Your task to perform on an android device: turn on translation in the chrome app Image 0: 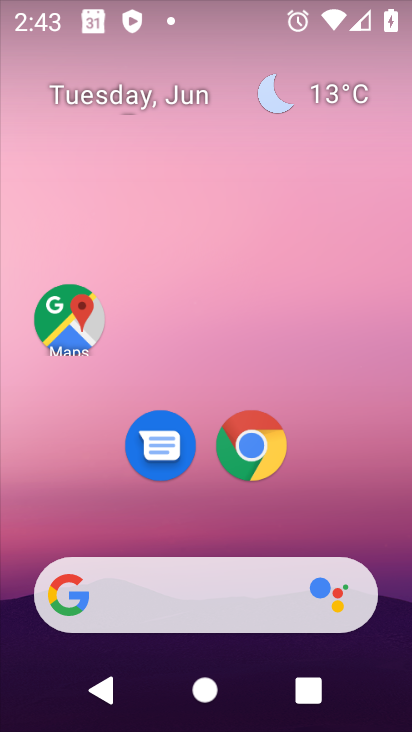
Step 0: click (250, 436)
Your task to perform on an android device: turn on translation in the chrome app Image 1: 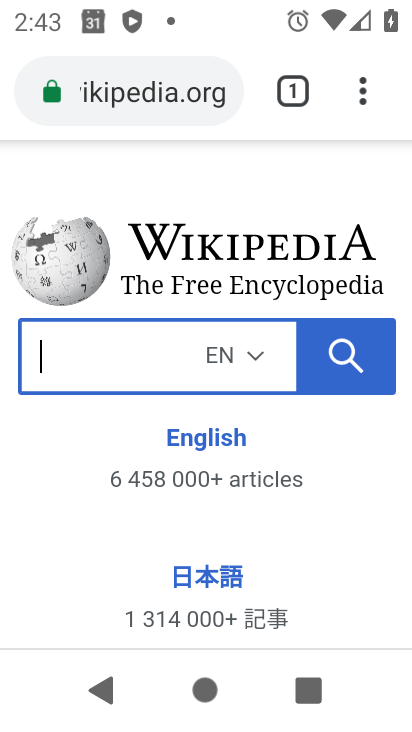
Step 1: click (361, 99)
Your task to perform on an android device: turn on translation in the chrome app Image 2: 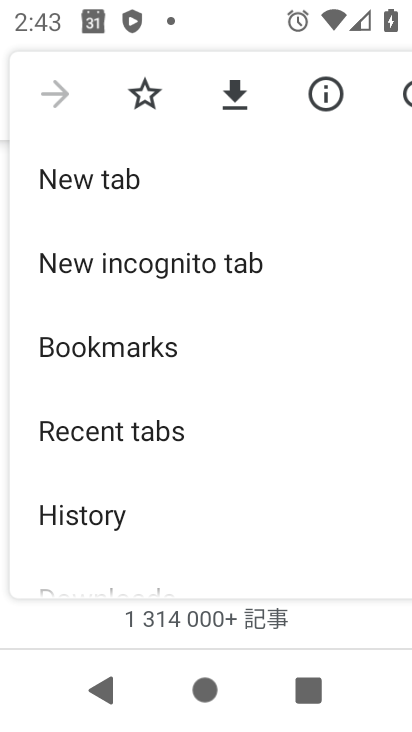
Step 2: drag from (232, 518) to (299, 157)
Your task to perform on an android device: turn on translation in the chrome app Image 3: 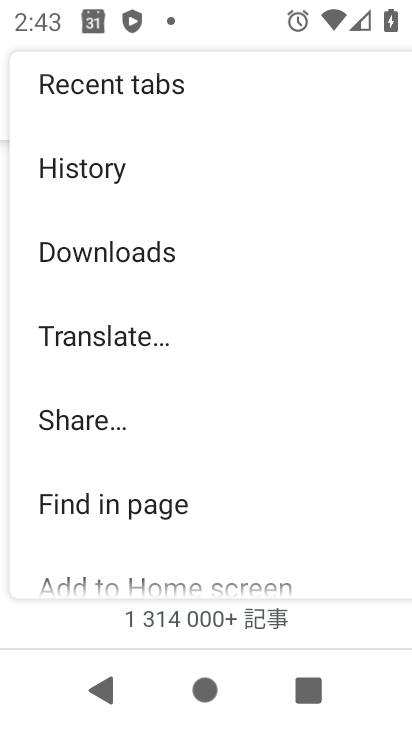
Step 3: drag from (274, 543) to (245, 127)
Your task to perform on an android device: turn on translation in the chrome app Image 4: 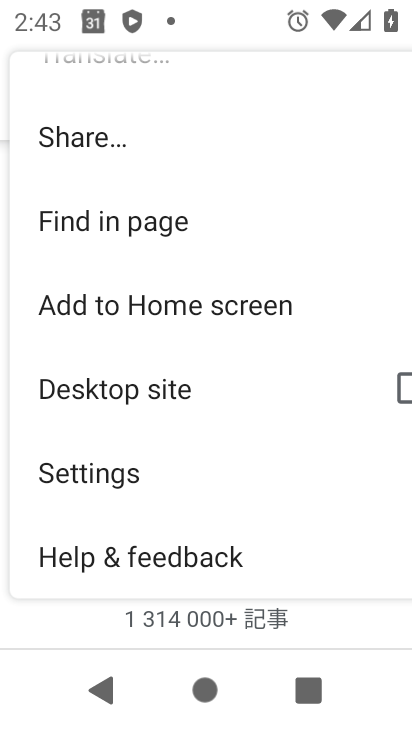
Step 4: click (119, 471)
Your task to perform on an android device: turn on translation in the chrome app Image 5: 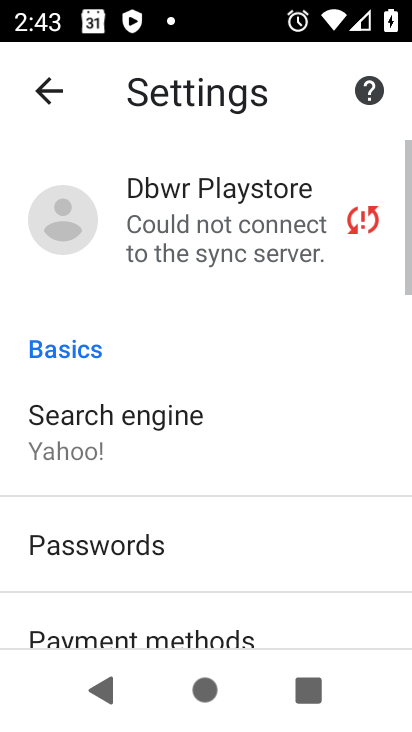
Step 5: drag from (313, 611) to (275, 188)
Your task to perform on an android device: turn on translation in the chrome app Image 6: 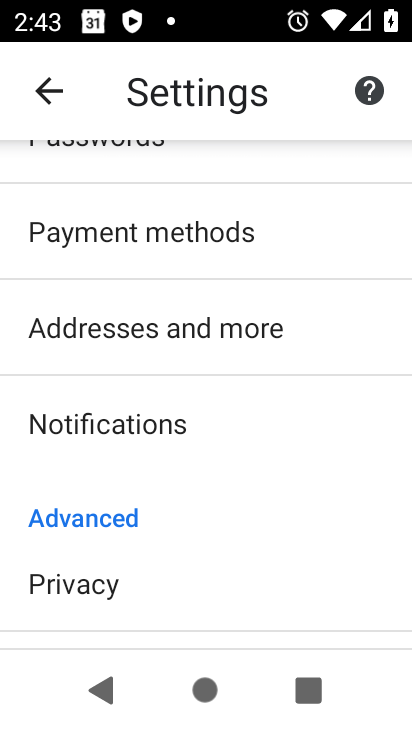
Step 6: drag from (278, 622) to (309, 142)
Your task to perform on an android device: turn on translation in the chrome app Image 7: 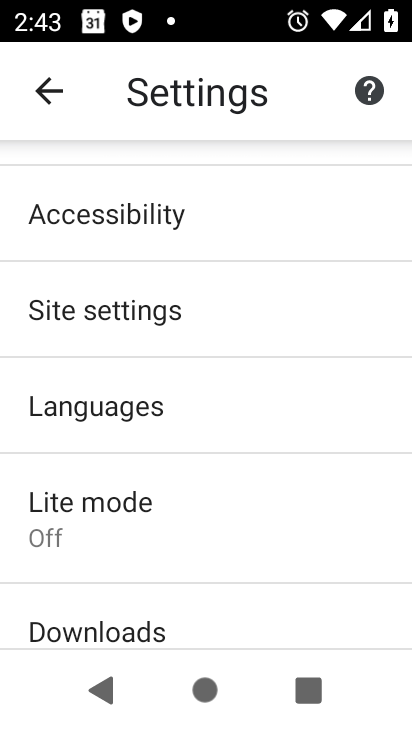
Step 7: click (119, 406)
Your task to perform on an android device: turn on translation in the chrome app Image 8: 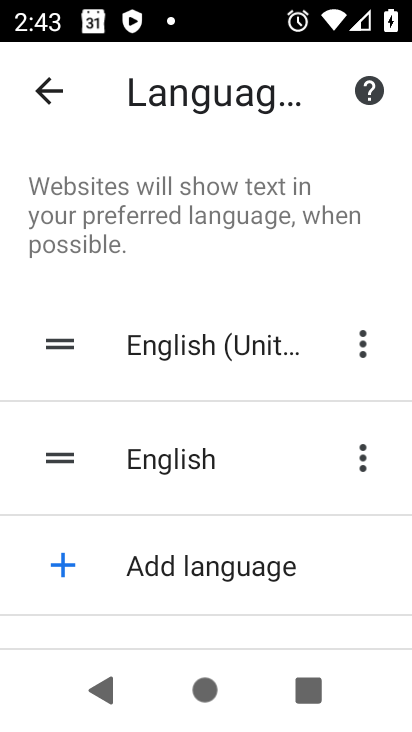
Step 8: task complete